Your task to perform on an android device: Show me recent news Image 0: 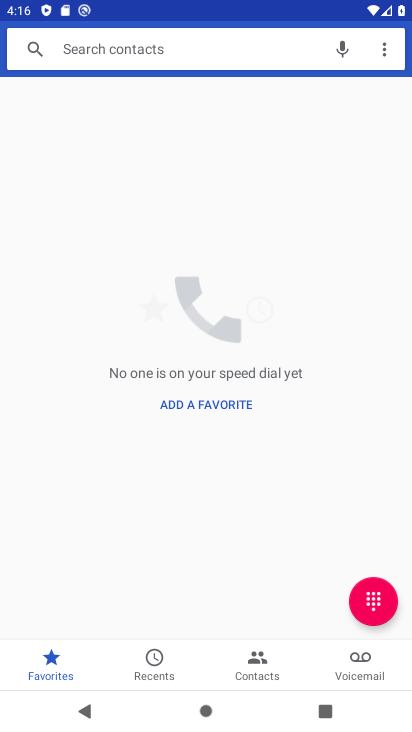
Step 0: press back button
Your task to perform on an android device: Show me recent news Image 1: 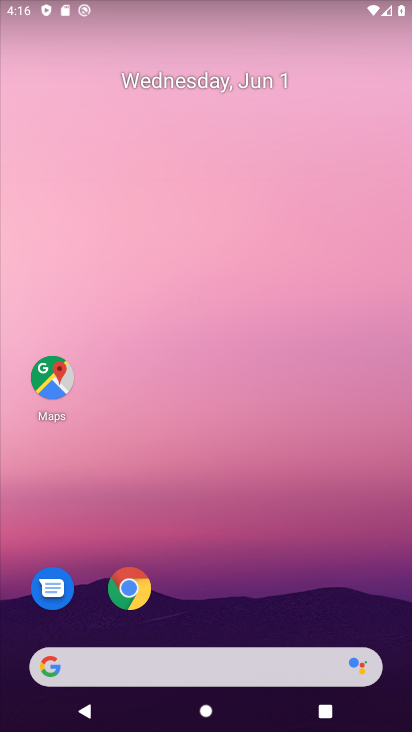
Step 1: drag from (258, 608) to (211, 141)
Your task to perform on an android device: Show me recent news Image 2: 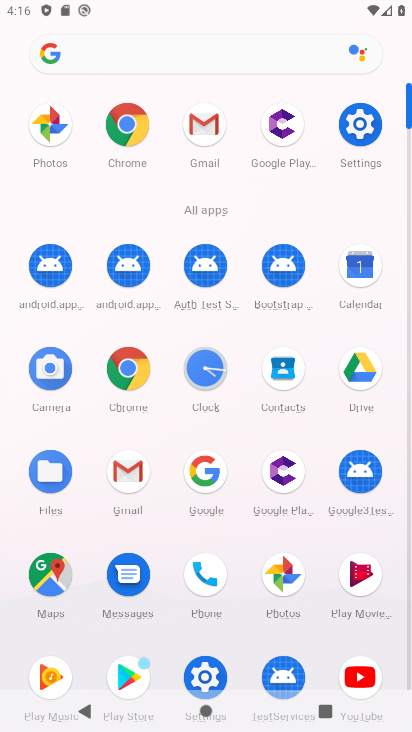
Step 2: click (200, 469)
Your task to perform on an android device: Show me recent news Image 3: 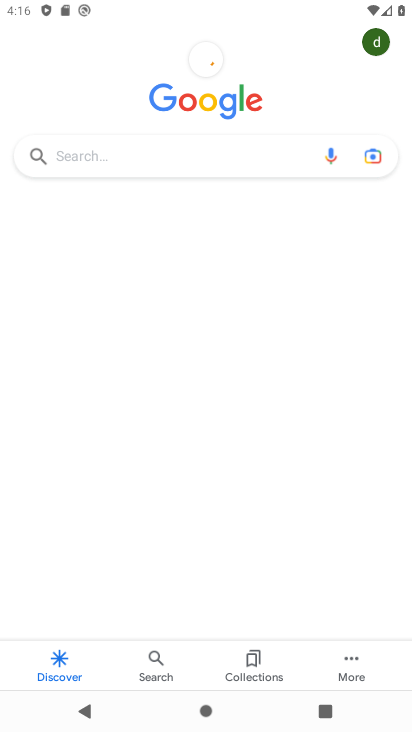
Step 3: click (153, 157)
Your task to perform on an android device: Show me recent news Image 4: 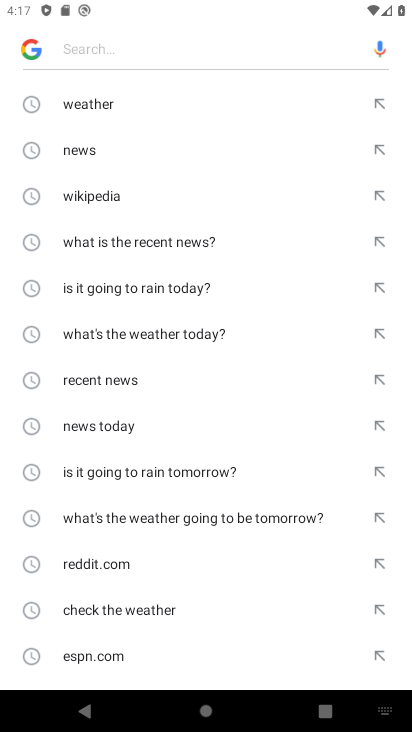
Step 4: type "recent news"
Your task to perform on an android device: Show me recent news Image 5: 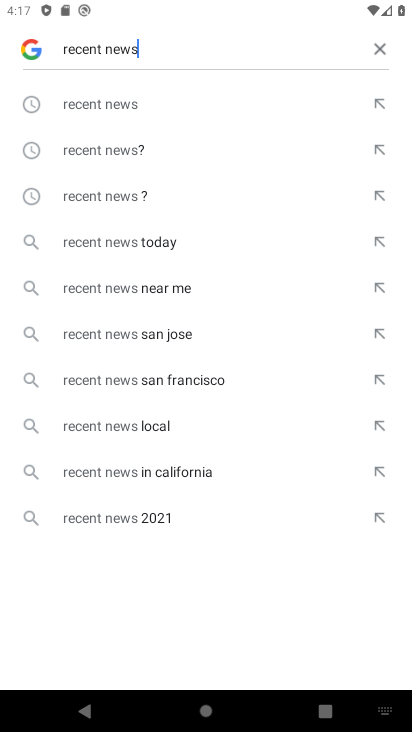
Step 5: click (105, 95)
Your task to perform on an android device: Show me recent news Image 6: 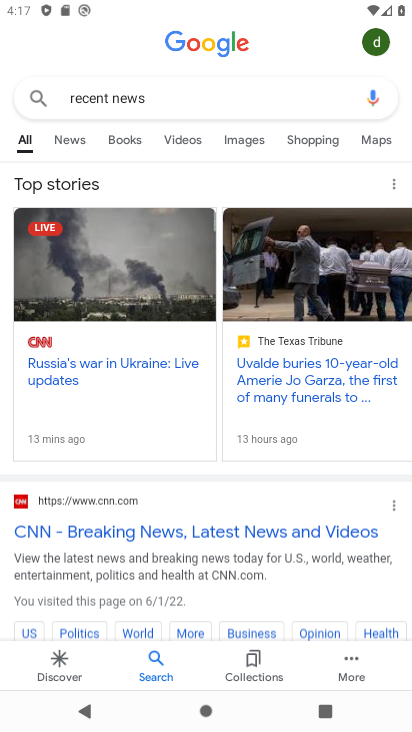
Step 6: click (106, 363)
Your task to perform on an android device: Show me recent news Image 7: 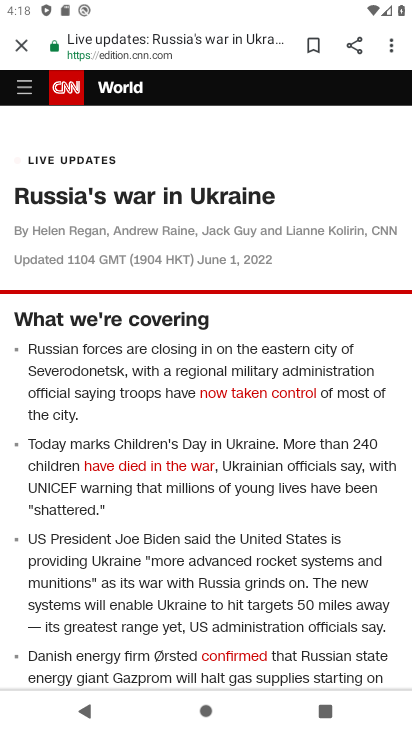
Step 7: task complete